Your task to perform on an android device: turn smart compose on in the gmail app Image 0: 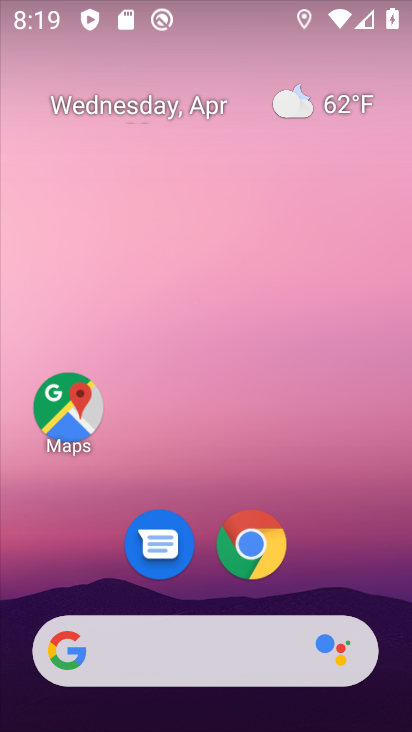
Step 0: drag from (339, 499) to (102, 200)
Your task to perform on an android device: turn smart compose on in the gmail app Image 1: 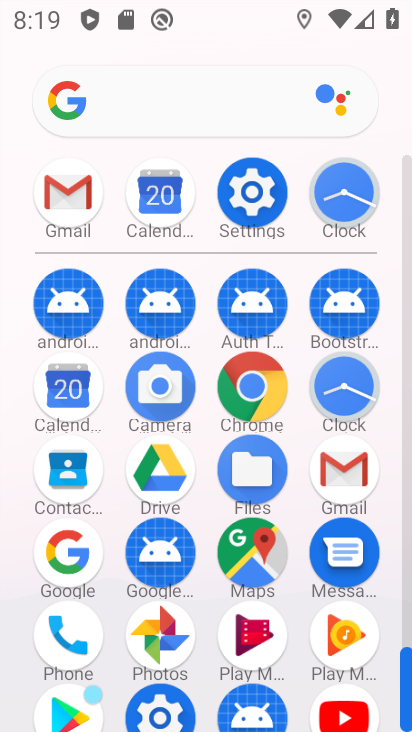
Step 1: click (347, 478)
Your task to perform on an android device: turn smart compose on in the gmail app Image 2: 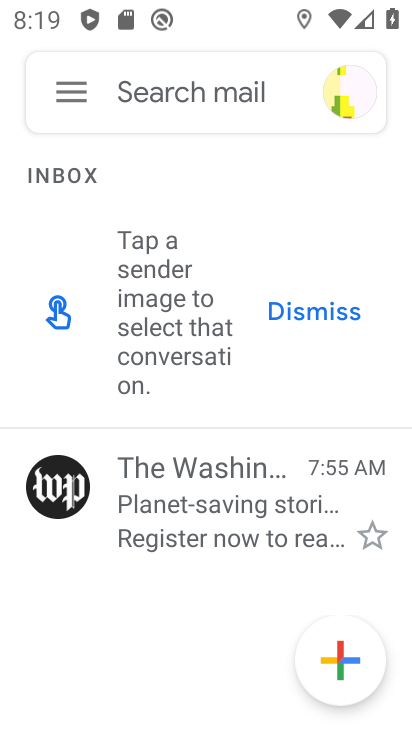
Step 2: click (75, 93)
Your task to perform on an android device: turn smart compose on in the gmail app Image 3: 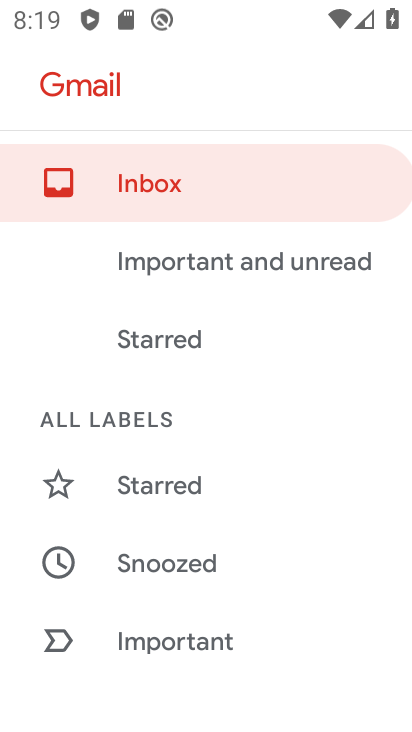
Step 3: drag from (170, 658) to (150, 219)
Your task to perform on an android device: turn smart compose on in the gmail app Image 4: 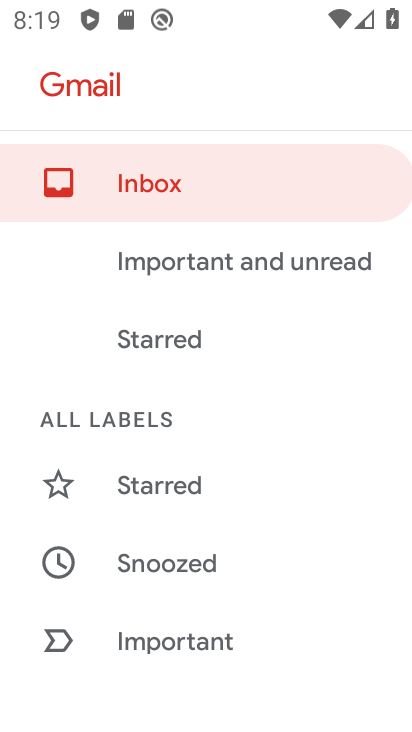
Step 4: drag from (270, 599) to (243, 88)
Your task to perform on an android device: turn smart compose on in the gmail app Image 5: 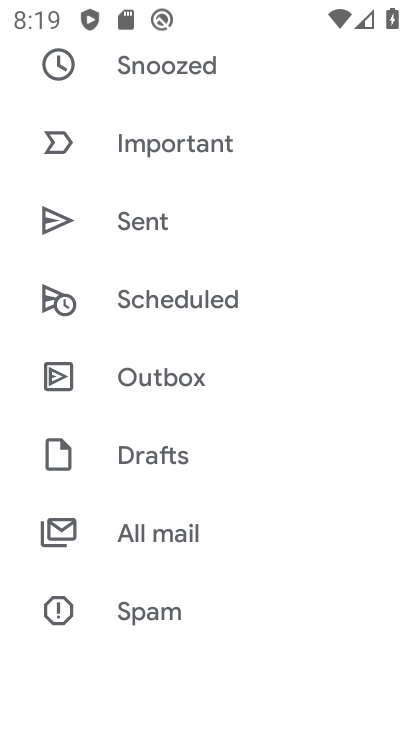
Step 5: drag from (248, 622) to (330, 171)
Your task to perform on an android device: turn smart compose on in the gmail app Image 6: 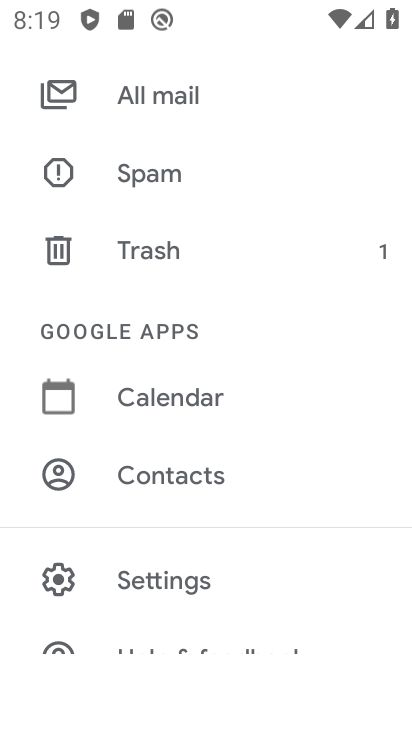
Step 6: click (134, 565)
Your task to perform on an android device: turn smart compose on in the gmail app Image 7: 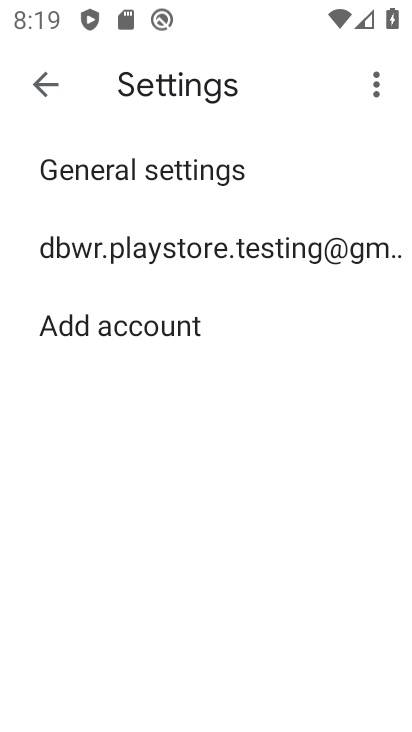
Step 7: click (250, 261)
Your task to perform on an android device: turn smart compose on in the gmail app Image 8: 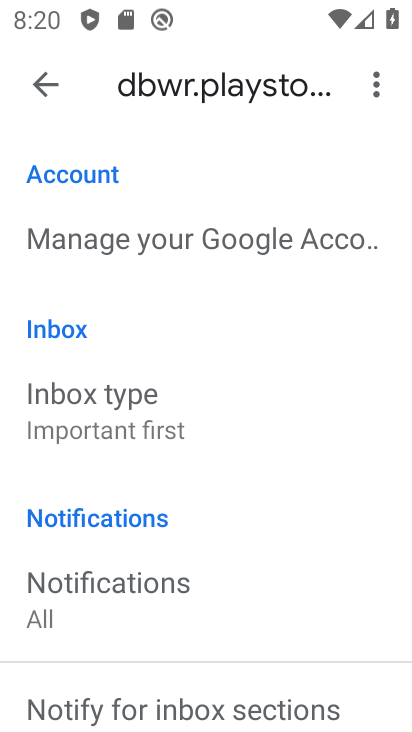
Step 8: task complete